Your task to perform on an android device: check out phone information Image 0: 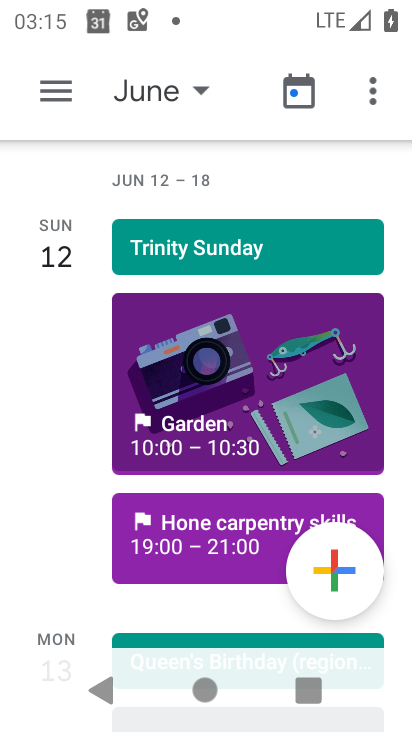
Step 0: press home button
Your task to perform on an android device: check out phone information Image 1: 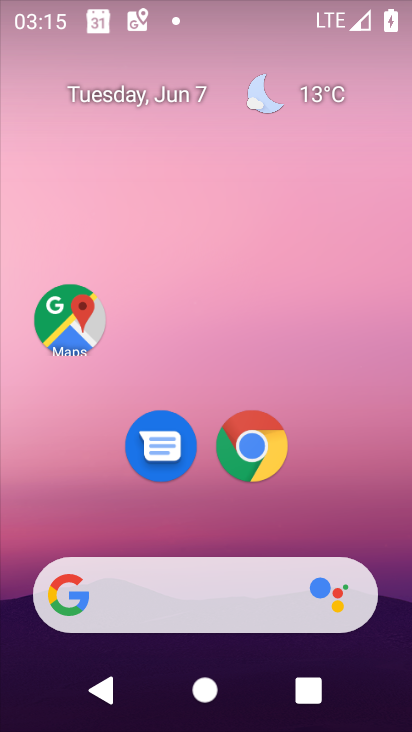
Step 1: drag from (217, 388) to (147, 4)
Your task to perform on an android device: check out phone information Image 2: 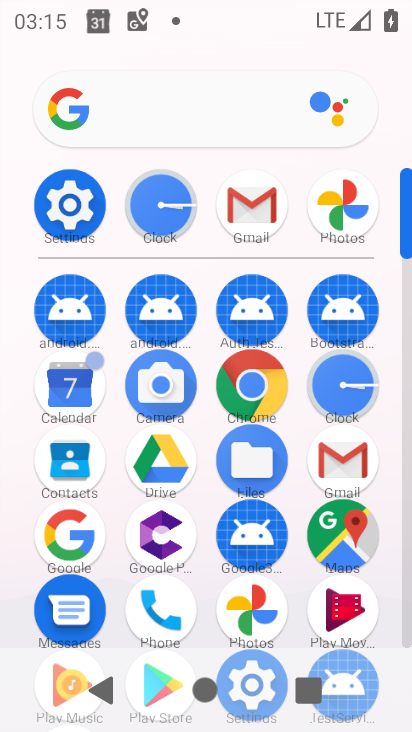
Step 2: click (69, 201)
Your task to perform on an android device: check out phone information Image 3: 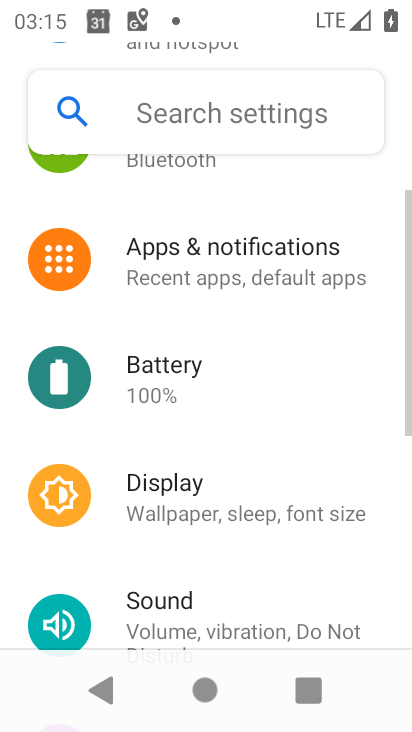
Step 3: drag from (276, 607) to (355, 13)
Your task to perform on an android device: check out phone information Image 4: 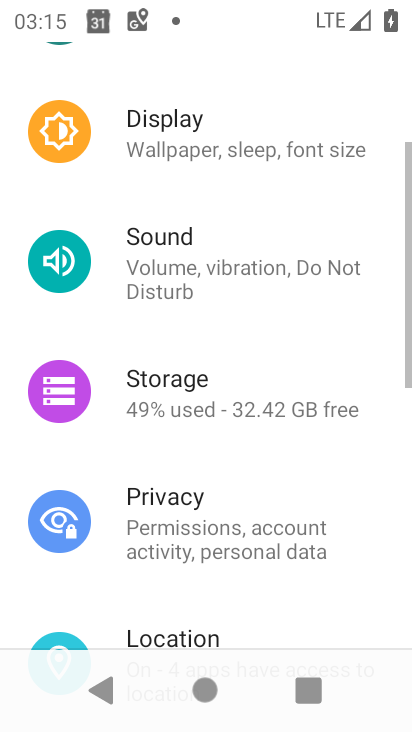
Step 4: drag from (277, 405) to (409, 13)
Your task to perform on an android device: check out phone information Image 5: 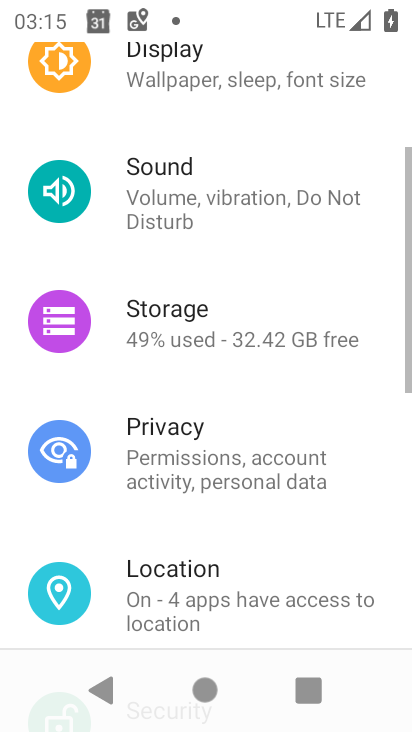
Step 5: drag from (238, 616) to (324, 151)
Your task to perform on an android device: check out phone information Image 6: 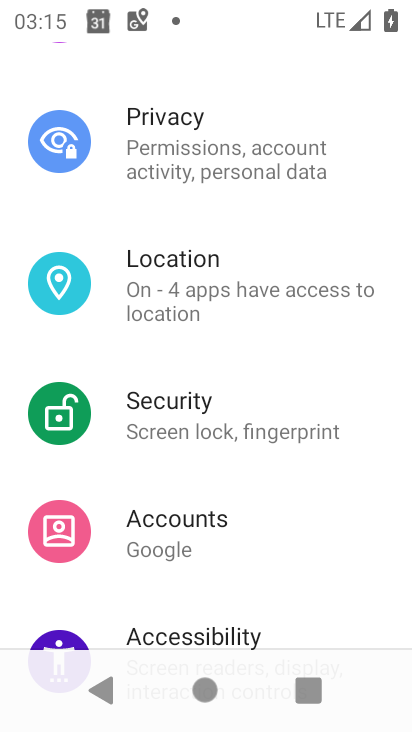
Step 6: drag from (245, 633) to (266, 46)
Your task to perform on an android device: check out phone information Image 7: 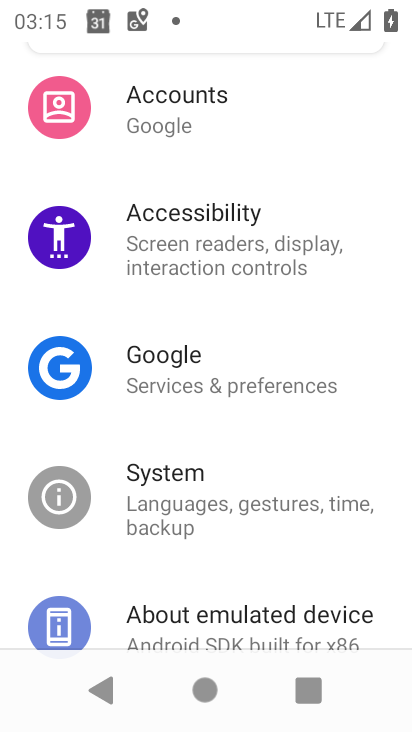
Step 7: click (224, 599)
Your task to perform on an android device: check out phone information Image 8: 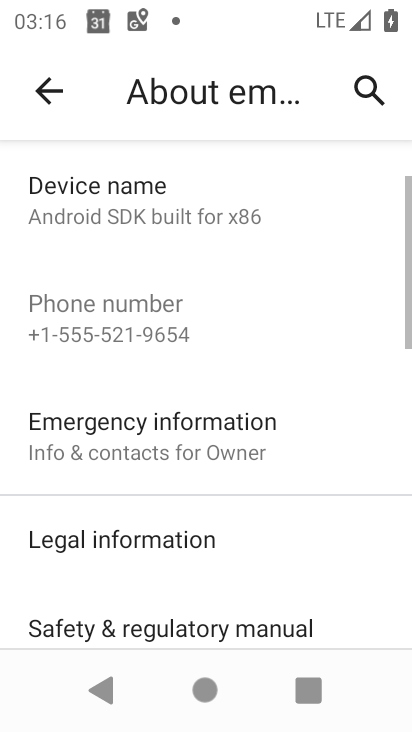
Step 8: task complete